Your task to perform on an android device: Open the calendar and show me this week's events Image 0: 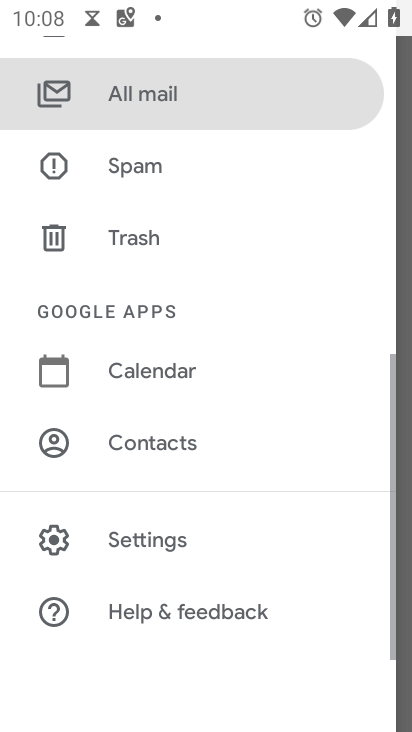
Step 0: drag from (251, 689) to (193, 286)
Your task to perform on an android device: Open the calendar and show me this week's events Image 1: 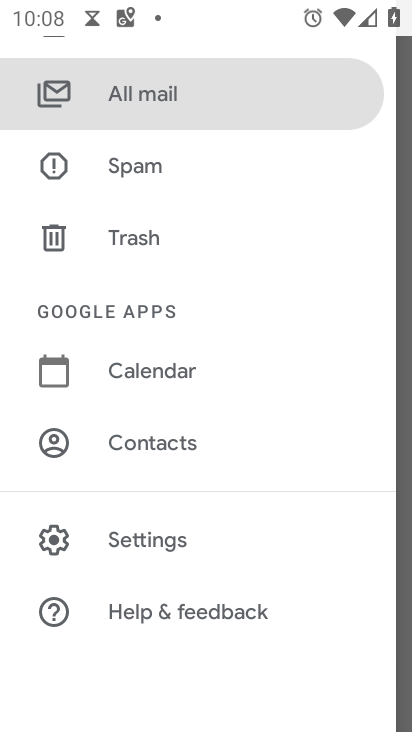
Step 1: press back button
Your task to perform on an android device: Open the calendar and show me this week's events Image 2: 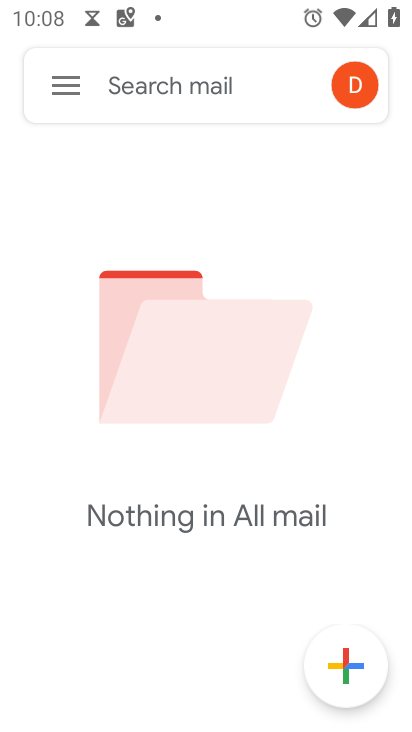
Step 2: press home button
Your task to perform on an android device: Open the calendar and show me this week's events Image 3: 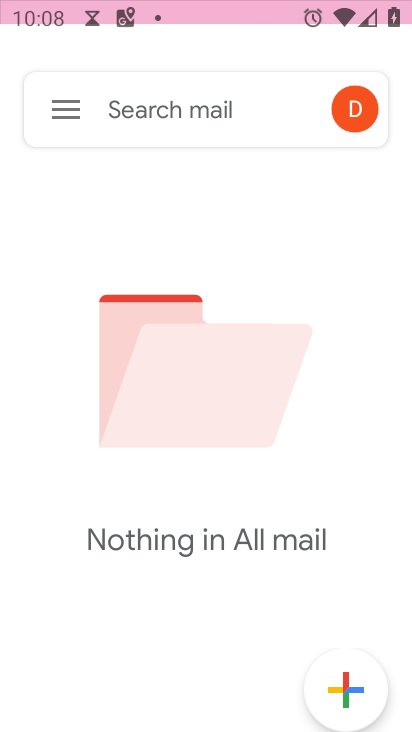
Step 3: press home button
Your task to perform on an android device: Open the calendar and show me this week's events Image 4: 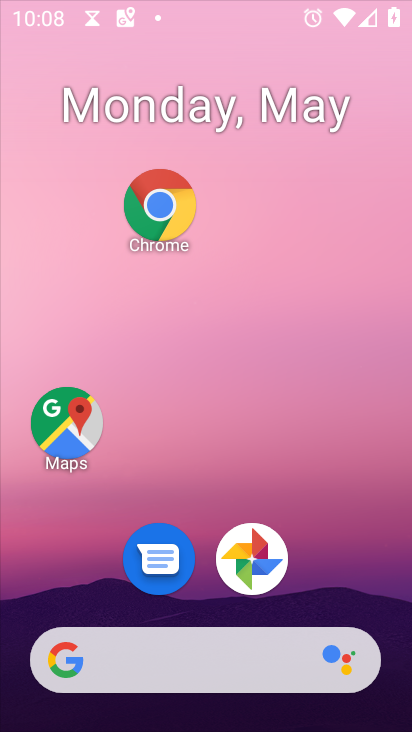
Step 4: press home button
Your task to perform on an android device: Open the calendar and show me this week's events Image 5: 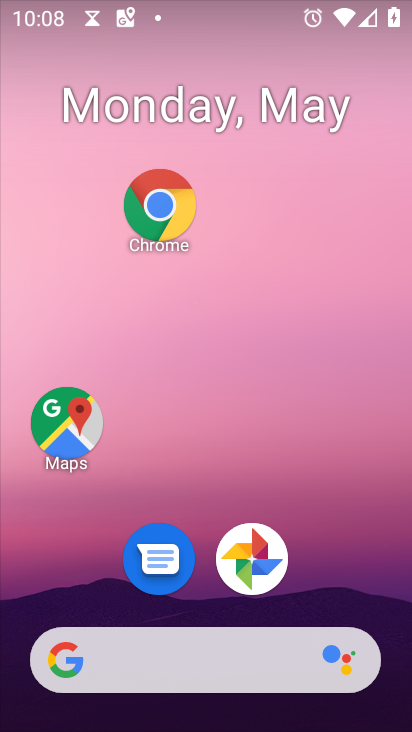
Step 5: drag from (327, 586) to (222, 7)
Your task to perform on an android device: Open the calendar and show me this week's events Image 6: 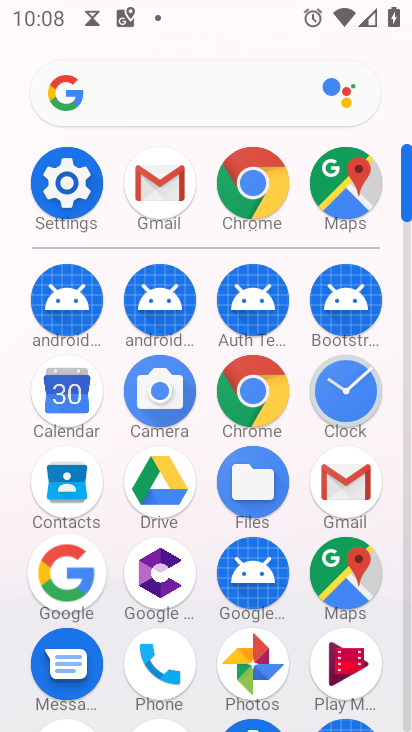
Step 6: click (68, 408)
Your task to perform on an android device: Open the calendar and show me this week's events Image 7: 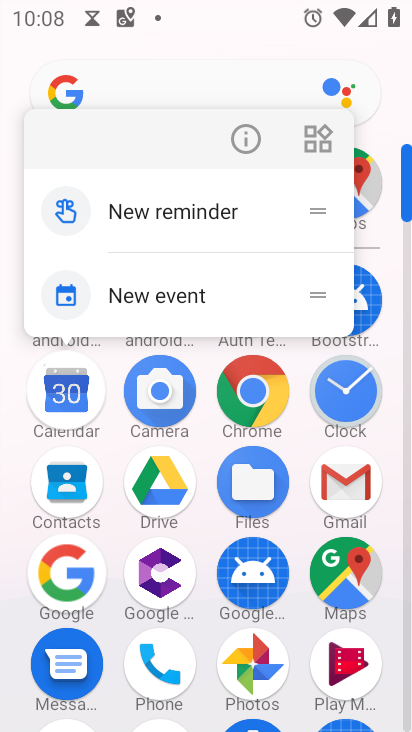
Step 7: click (74, 396)
Your task to perform on an android device: Open the calendar and show me this week's events Image 8: 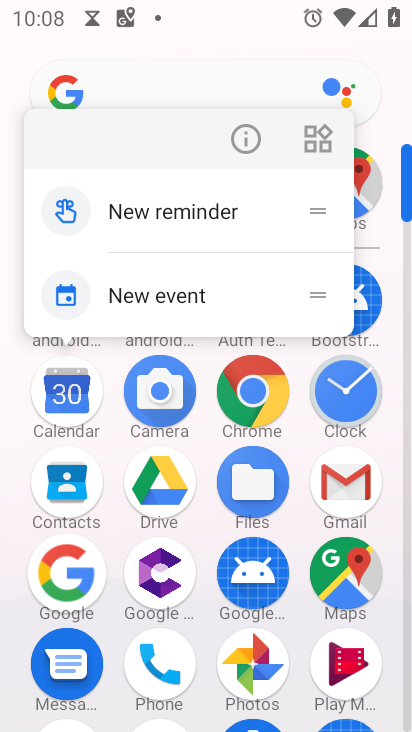
Step 8: click (102, 440)
Your task to perform on an android device: Open the calendar and show me this week's events Image 9: 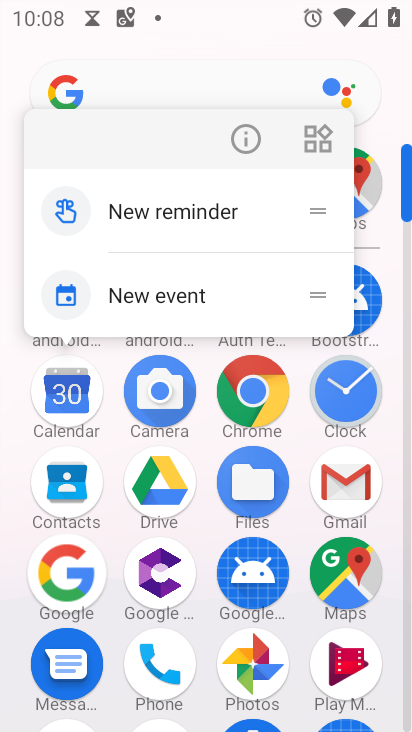
Step 9: click (108, 416)
Your task to perform on an android device: Open the calendar and show me this week's events Image 10: 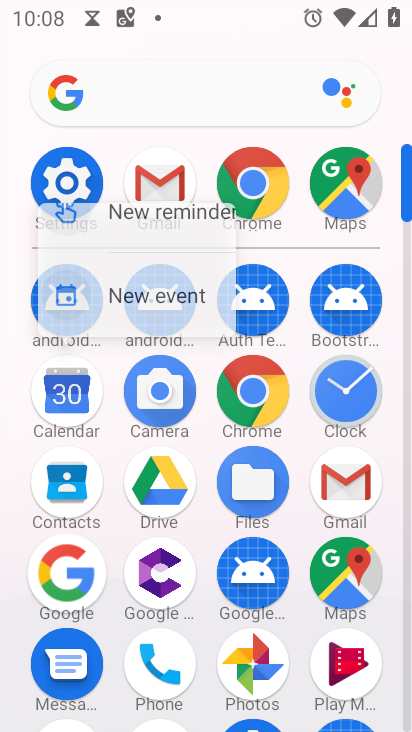
Step 10: click (109, 414)
Your task to perform on an android device: Open the calendar and show me this week's events Image 11: 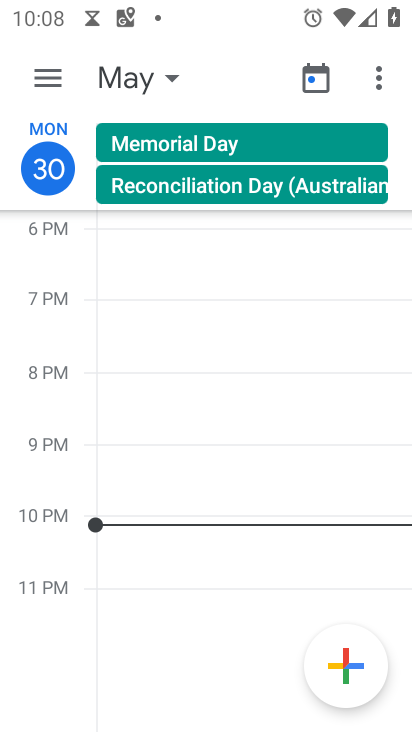
Step 11: press back button
Your task to perform on an android device: Open the calendar and show me this week's events Image 12: 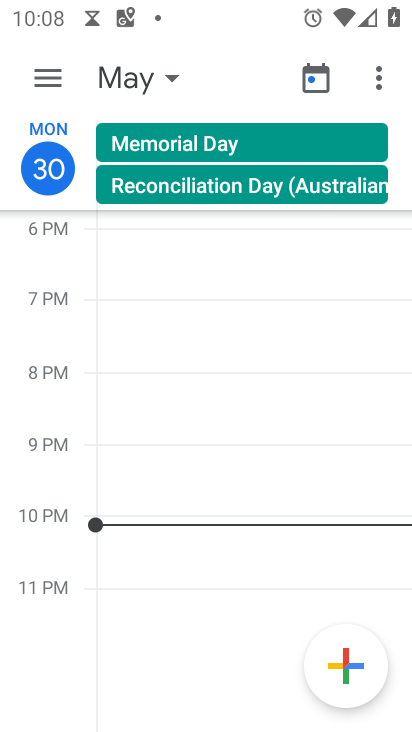
Step 12: press back button
Your task to perform on an android device: Open the calendar and show me this week's events Image 13: 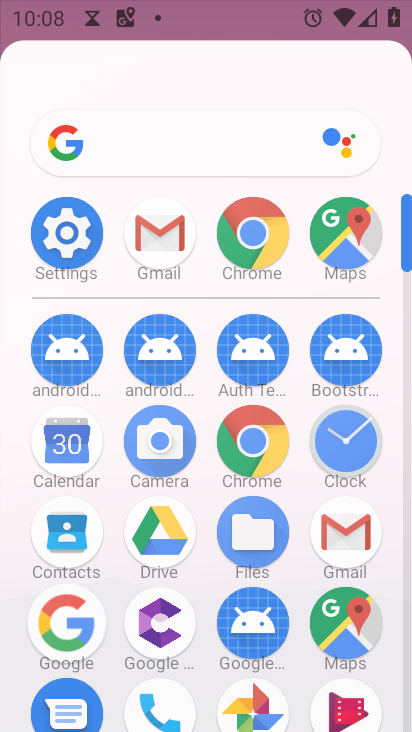
Step 13: press back button
Your task to perform on an android device: Open the calendar and show me this week's events Image 14: 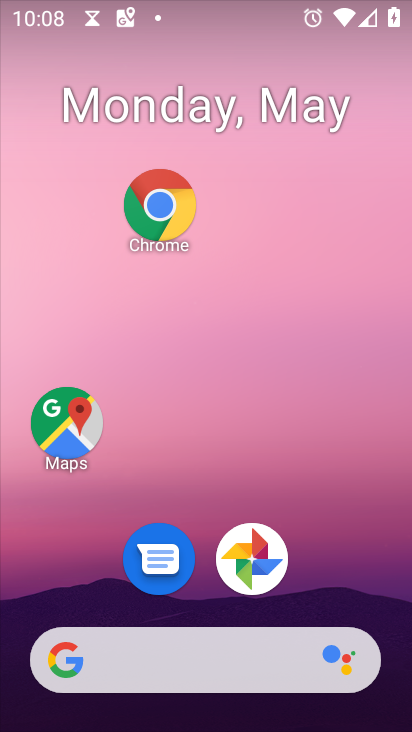
Step 14: press back button
Your task to perform on an android device: Open the calendar and show me this week's events Image 15: 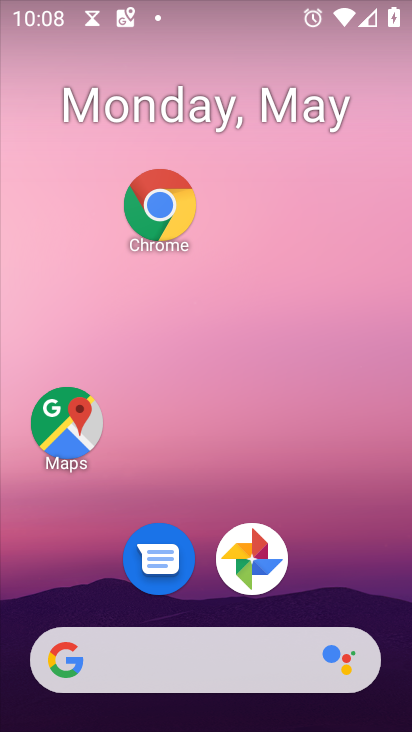
Step 15: press back button
Your task to perform on an android device: Open the calendar and show me this week's events Image 16: 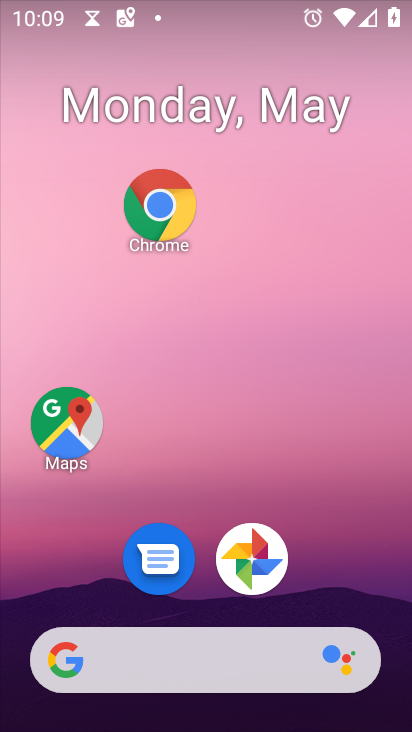
Step 16: drag from (224, 706) to (215, 186)
Your task to perform on an android device: Open the calendar and show me this week's events Image 17: 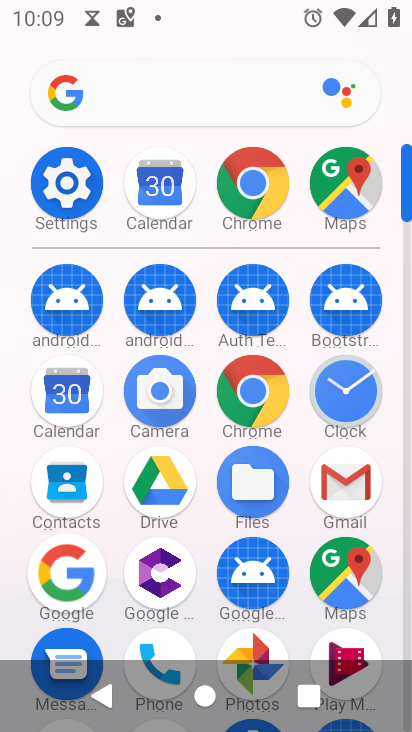
Step 17: click (68, 404)
Your task to perform on an android device: Open the calendar and show me this week's events Image 18: 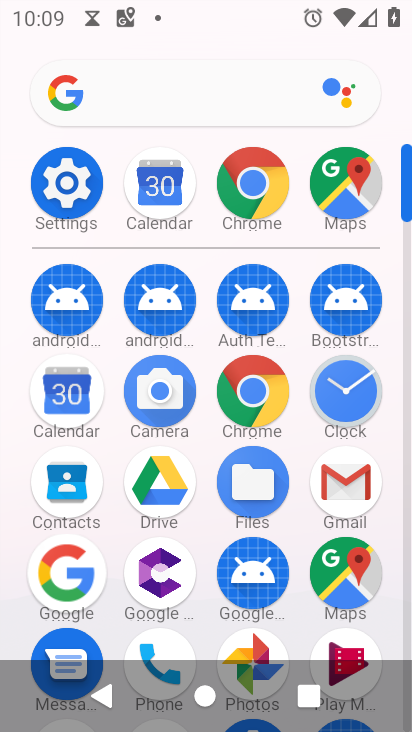
Step 18: click (65, 398)
Your task to perform on an android device: Open the calendar and show me this week's events Image 19: 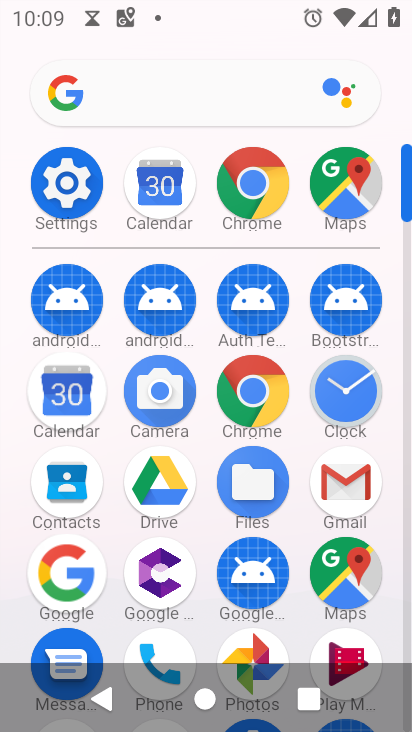
Step 19: click (65, 398)
Your task to perform on an android device: Open the calendar and show me this week's events Image 20: 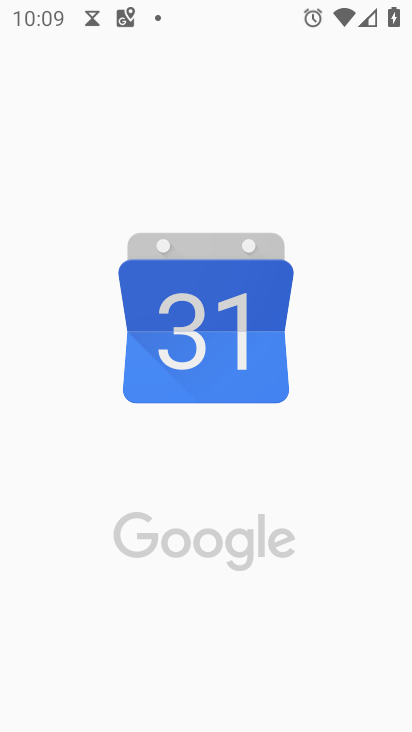
Step 20: click (64, 398)
Your task to perform on an android device: Open the calendar and show me this week's events Image 21: 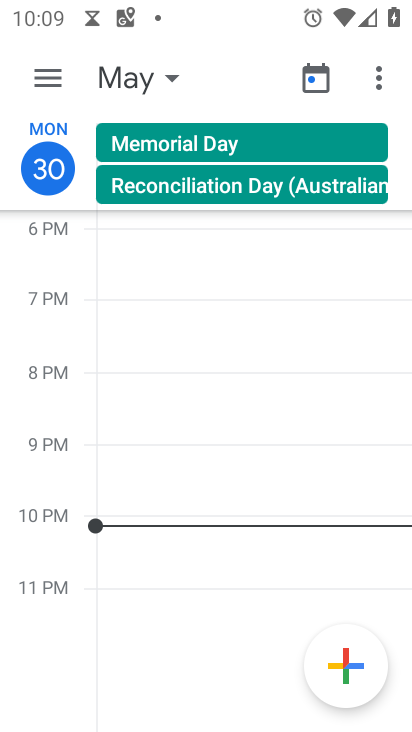
Step 21: press back button
Your task to perform on an android device: Open the calendar and show me this week's events Image 22: 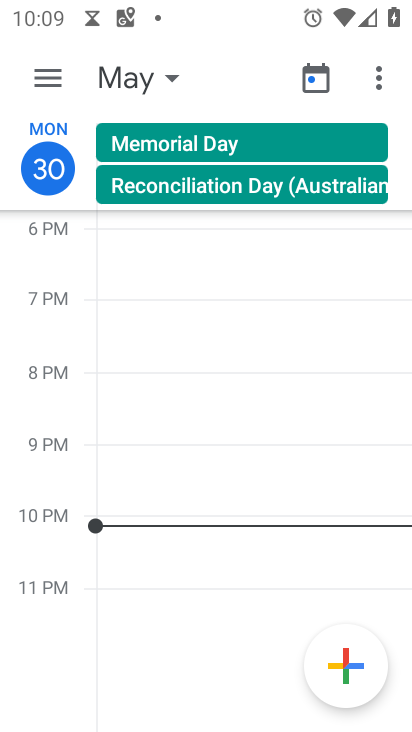
Step 22: press back button
Your task to perform on an android device: Open the calendar and show me this week's events Image 23: 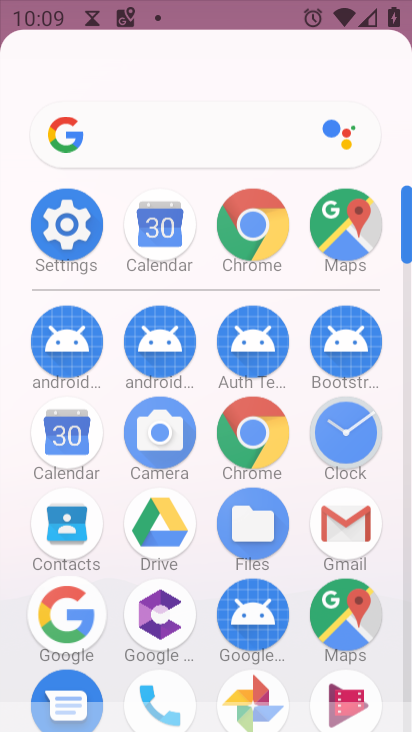
Step 23: press back button
Your task to perform on an android device: Open the calendar and show me this week's events Image 24: 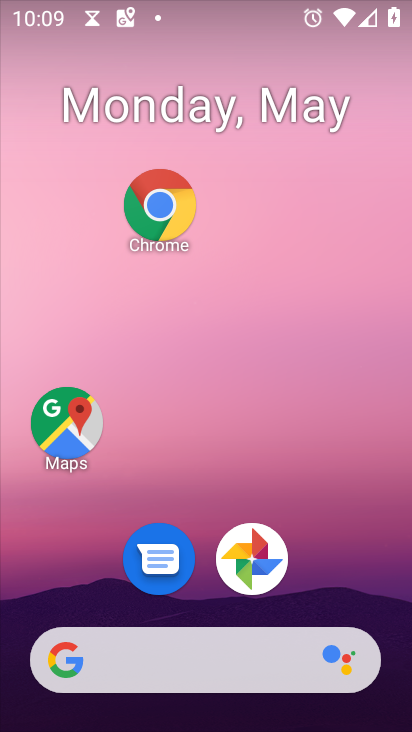
Step 24: drag from (212, 688) to (171, 152)
Your task to perform on an android device: Open the calendar and show me this week's events Image 25: 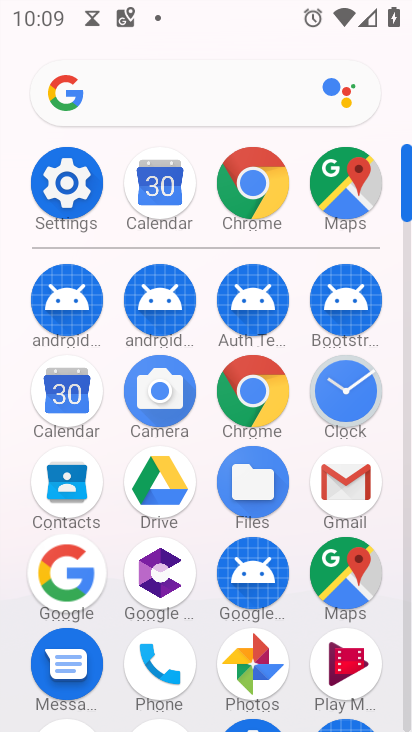
Step 25: click (73, 398)
Your task to perform on an android device: Open the calendar and show me this week's events Image 26: 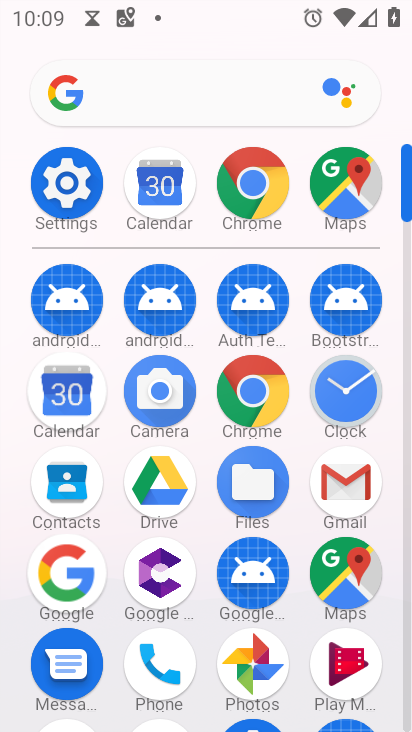
Step 26: click (73, 398)
Your task to perform on an android device: Open the calendar and show me this week's events Image 27: 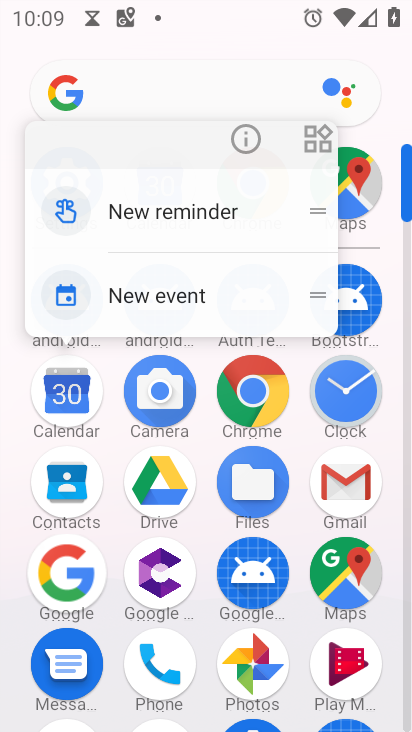
Step 27: click (73, 398)
Your task to perform on an android device: Open the calendar and show me this week's events Image 28: 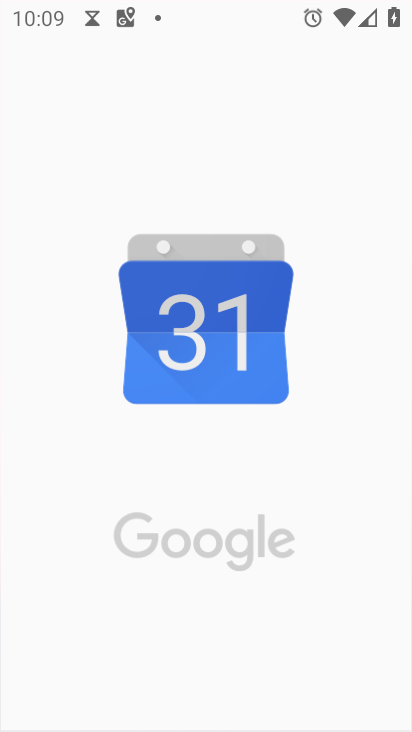
Step 28: click (76, 392)
Your task to perform on an android device: Open the calendar and show me this week's events Image 29: 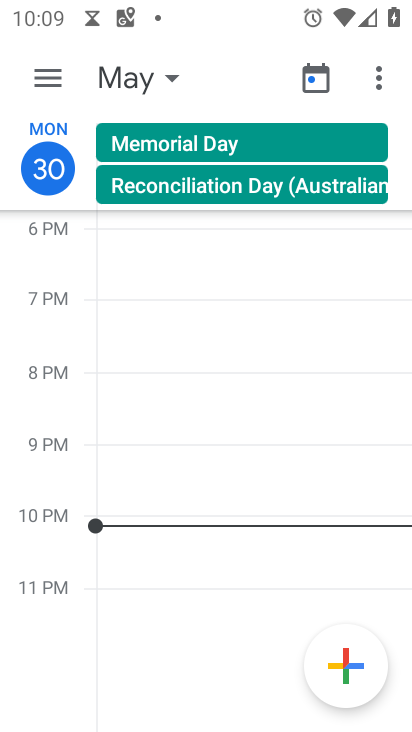
Step 29: click (164, 77)
Your task to perform on an android device: Open the calendar and show me this week's events Image 30: 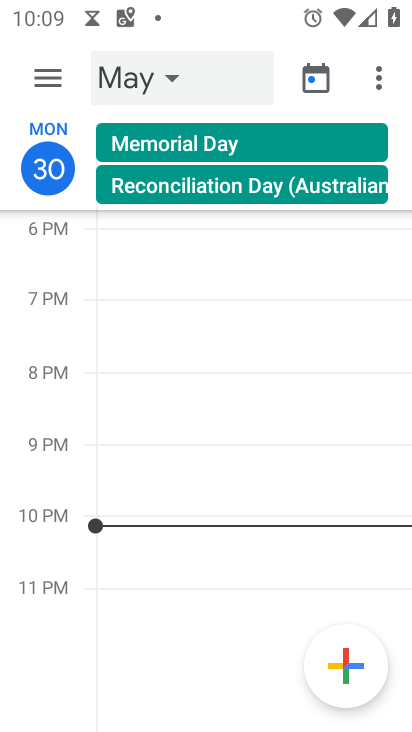
Step 30: click (164, 77)
Your task to perform on an android device: Open the calendar and show me this week's events Image 31: 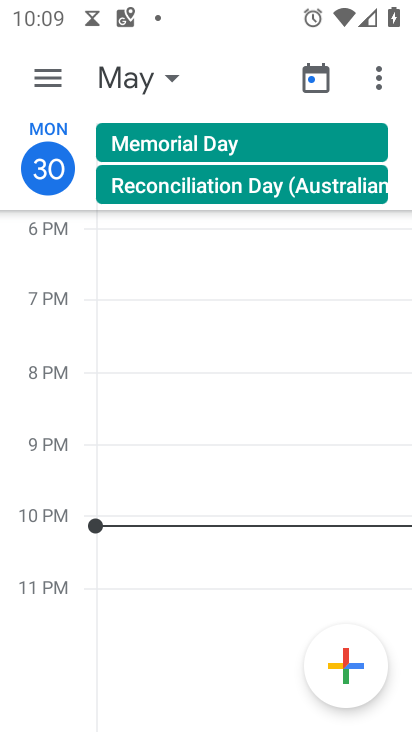
Step 31: click (170, 77)
Your task to perform on an android device: Open the calendar and show me this week's events Image 32: 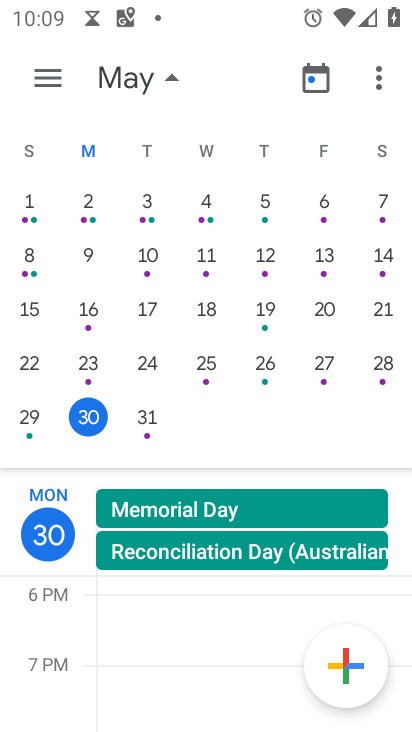
Step 32: drag from (291, 313) to (75, 345)
Your task to perform on an android device: Open the calendar and show me this week's events Image 33: 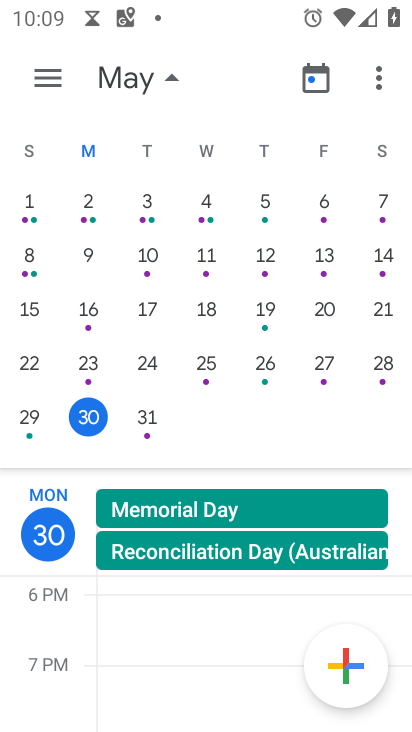
Step 33: drag from (349, 315) to (31, 375)
Your task to perform on an android device: Open the calendar and show me this week's events Image 34: 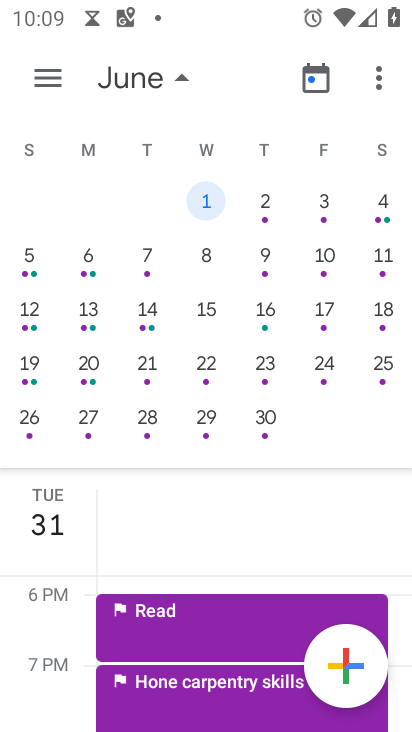
Step 34: drag from (290, 310) to (4, 339)
Your task to perform on an android device: Open the calendar and show me this week's events Image 35: 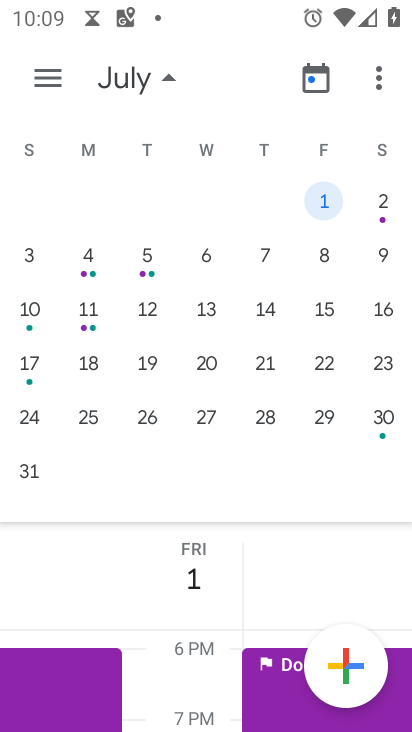
Step 35: click (10, 336)
Your task to perform on an android device: Open the calendar and show me this week's events Image 36: 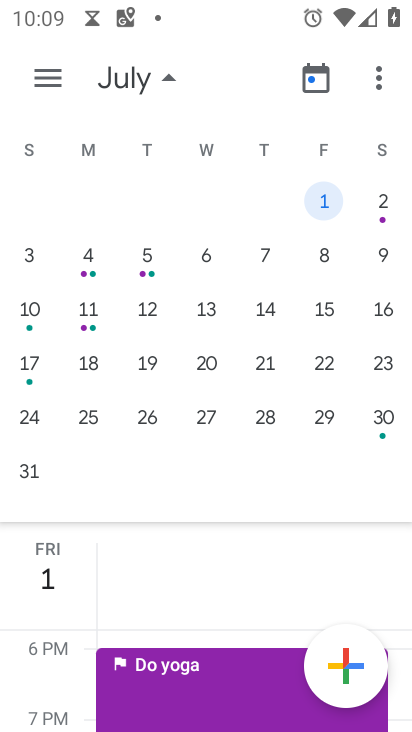
Step 36: drag from (52, 351) to (411, 346)
Your task to perform on an android device: Open the calendar and show me this week's events Image 37: 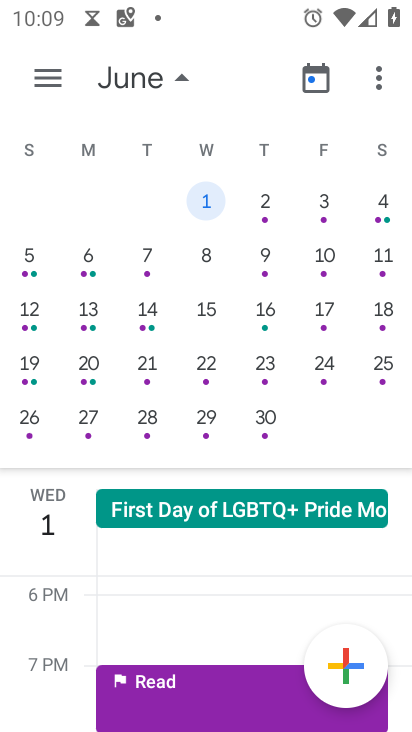
Step 37: drag from (139, 326) to (411, 306)
Your task to perform on an android device: Open the calendar and show me this week's events Image 38: 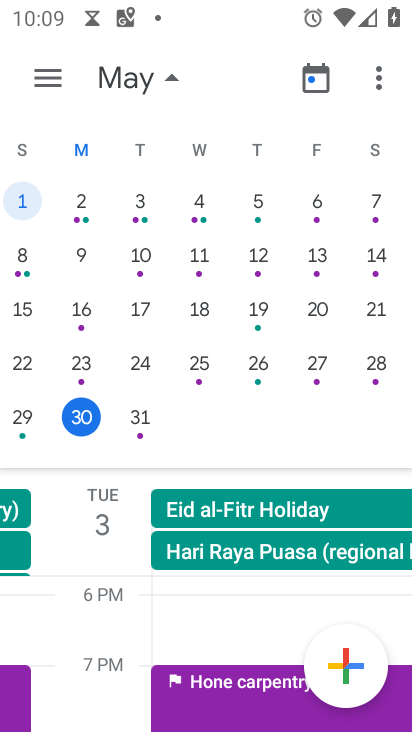
Step 38: drag from (117, 323) to (336, 285)
Your task to perform on an android device: Open the calendar and show me this week's events Image 39: 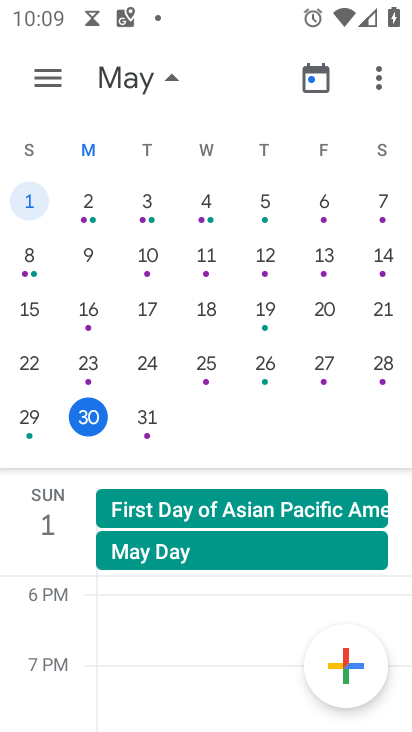
Step 39: drag from (3, 296) to (349, 275)
Your task to perform on an android device: Open the calendar and show me this week's events Image 40: 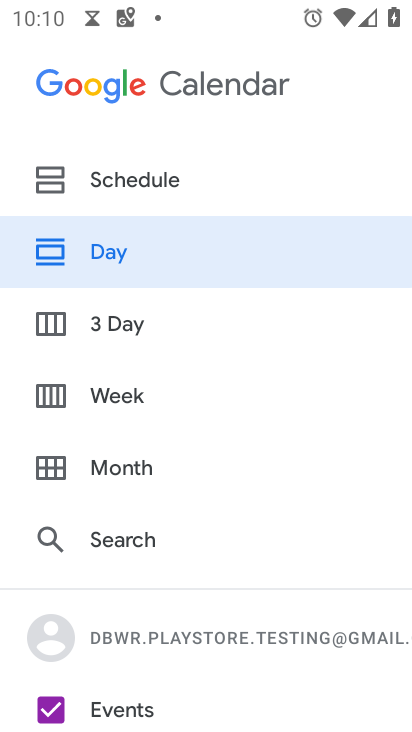
Step 40: press back button
Your task to perform on an android device: Open the calendar and show me this week's events Image 41: 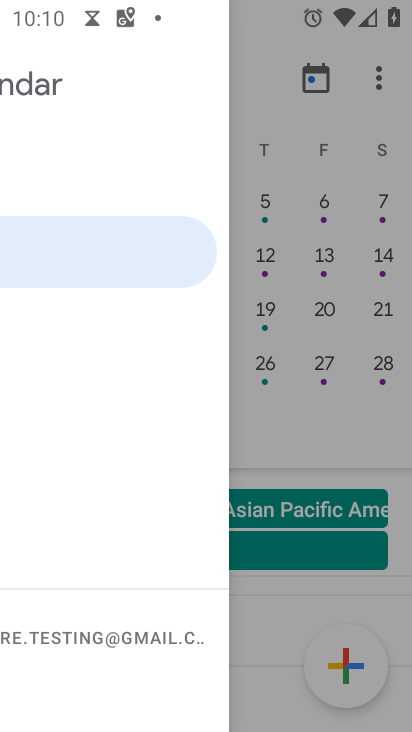
Step 41: press back button
Your task to perform on an android device: Open the calendar and show me this week's events Image 42: 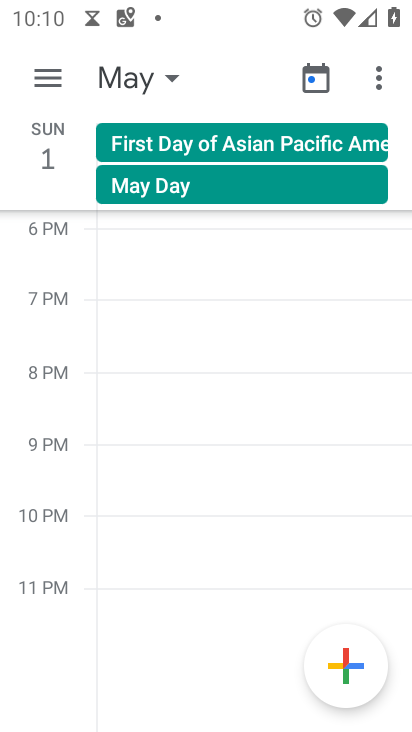
Step 42: click (164, 73)
Your task to perform on an android device: Open the calendar and show me this week's events Image 43: 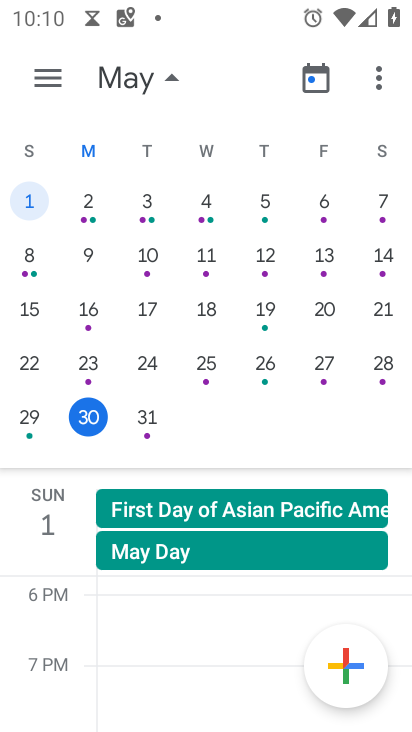
Step 43: drag from (103, 347) to (3, 353)
Your task to perform on an android device: Open the calendar and show me this week's events Image 44: 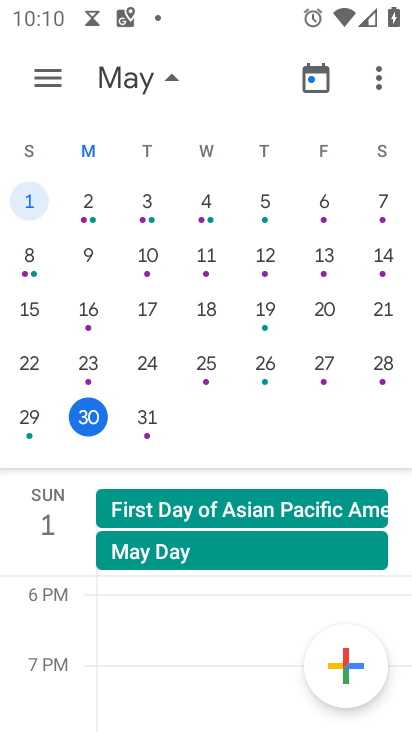
Step 44: drag from (292, 277) to (0, 448)
Your task to perform on an android device: Open the calendar and show me this week's events Image 45: 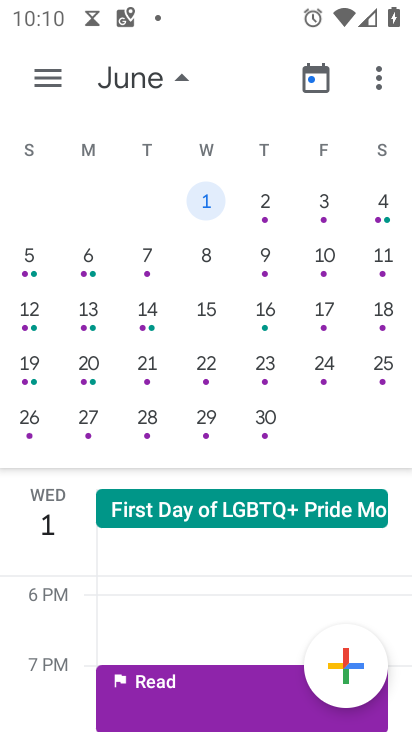
Step 45: drag from (303, 284) to (13, 406)
Your task to perform on an android device: Open the calendar and show me this week's events Image 46: 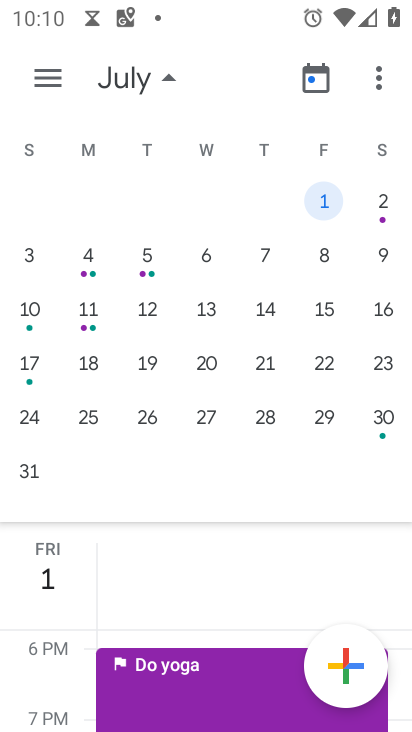
Step 46: drag from (110, 322) to (403, 376)
Your task to perform on an android device: Open the calendar and show me this week's events Image 47: 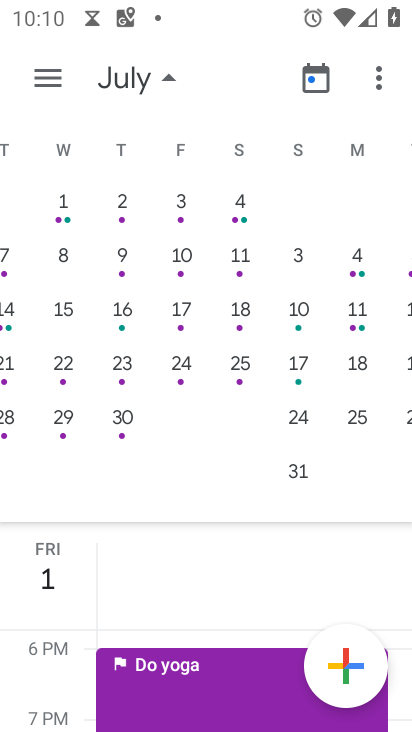
Step 47: drag from (41, 329) to (401, 298)
Your task to perform on an android device: Open the calendar and show me this week's events Image 48: 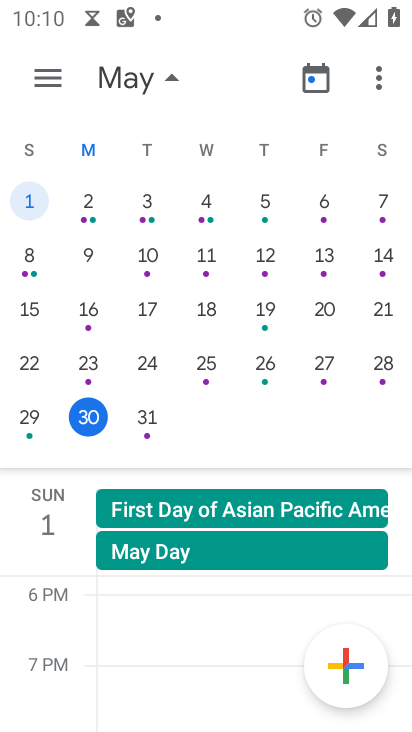
Step 48: drag from (264, 261) to (98, 392)
Your task to perform on an android device: Open the calendar and show me this week's events Image 49: 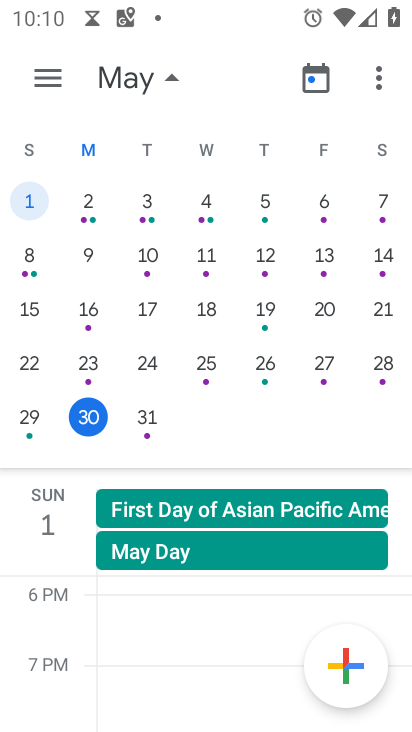
Step 49: drag from (284, 341) to (14, 364)
Your task to perform on an android device: Open the calendar and show me this week's events Image 50: 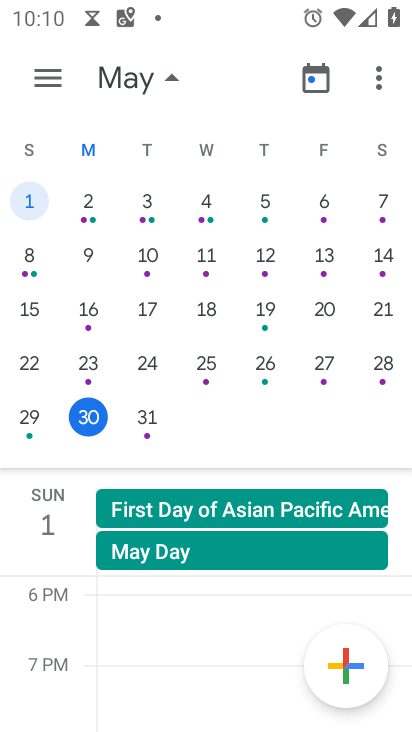
Step 50: drag from (258, 278) to (66, 288)
Your task to perform on an android device: Open the calendar and show me this week's events Image 51: 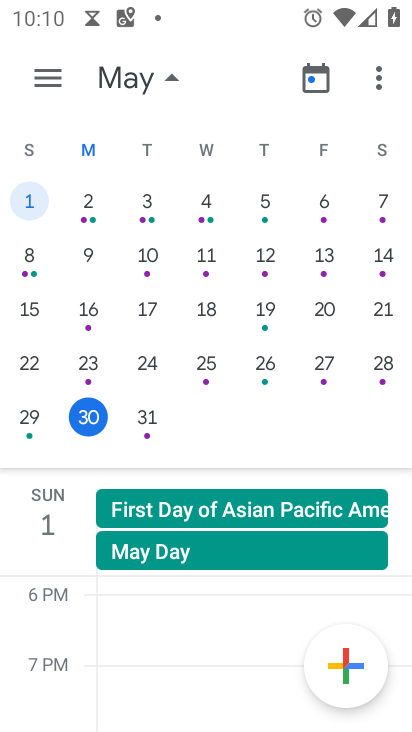
Step 51: drag from (319, 302) to (8, 320)
Your task to perform on an android device: Open the calendar and show me this week's events Image 52: 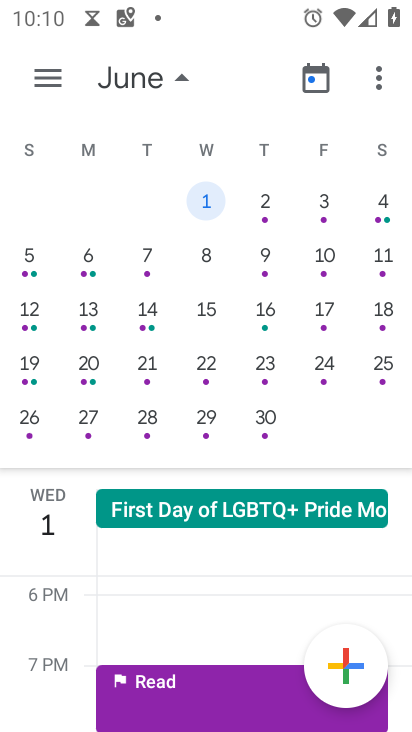
Step 52: click (18, 389)
Your task to perform on an android device: Open the calendar and show me this week's events Image 53: 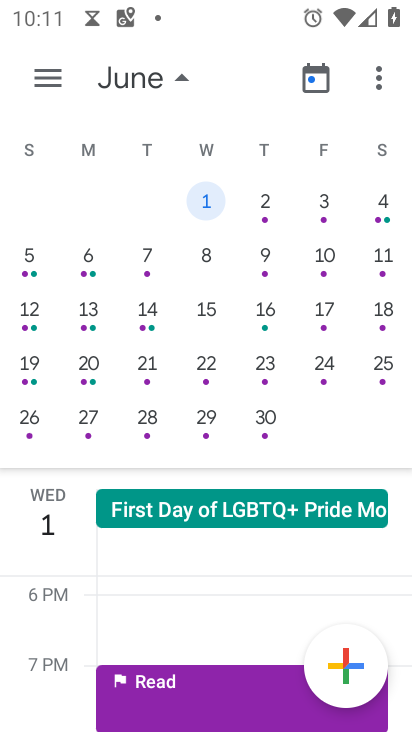
Step 53: drag from (76, 367) to (362, 391)
Your task to perform on an android device: Open the calendar and show me this week's events Image 54: 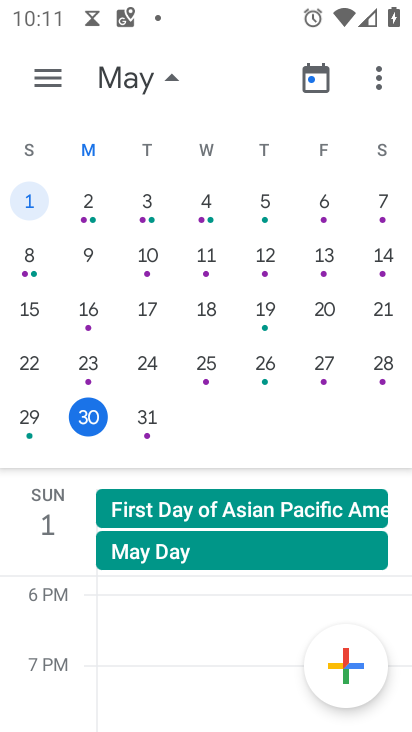
Step 54: click (149, 410)
Your task to perform on an android device: Open the calendar and show me this week's events Image 55: 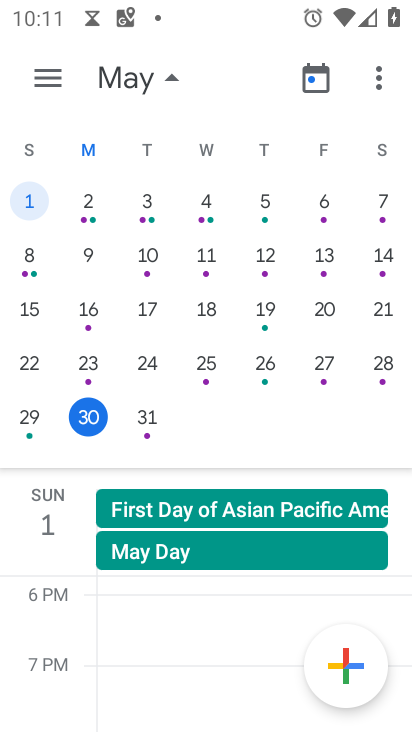
Step 55: click (149, 411)
Your task to perform on an android device: Open the calendar and show me this week's events Image 56: 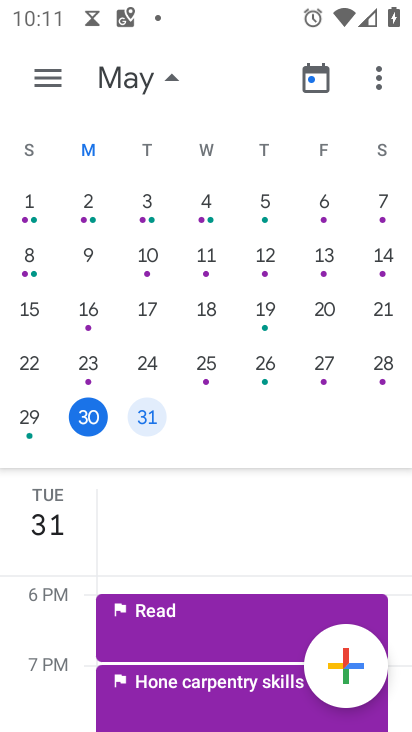
Step 56: click (149, 411)
Your task to perform on an android device: Open the calendar and show me this week's events Image 57: 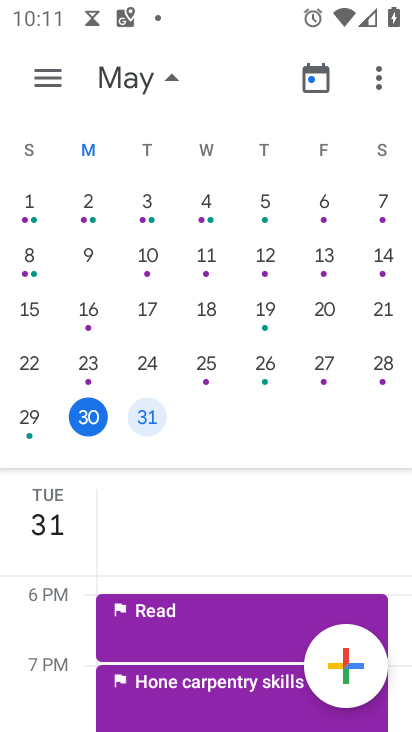
Step 57: click (149, 411)
Your task to perform on an android device: Open the calendar and show me this week's events Image 58: 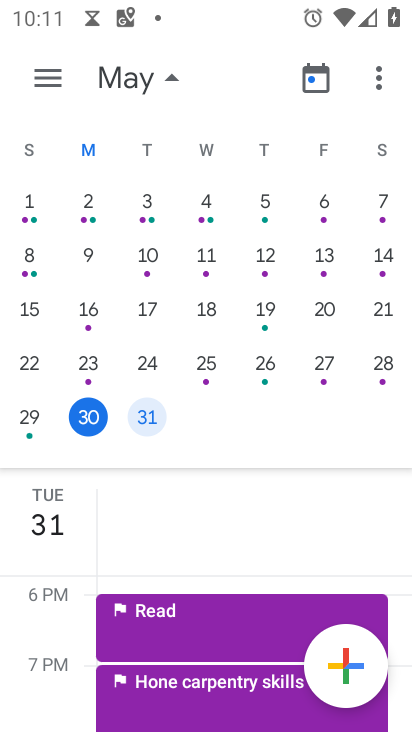
Step 58: drag from (191, 617) to (129, 232)
Your task to perform on an android device: Open the calendar and show me this week's events Image 59: 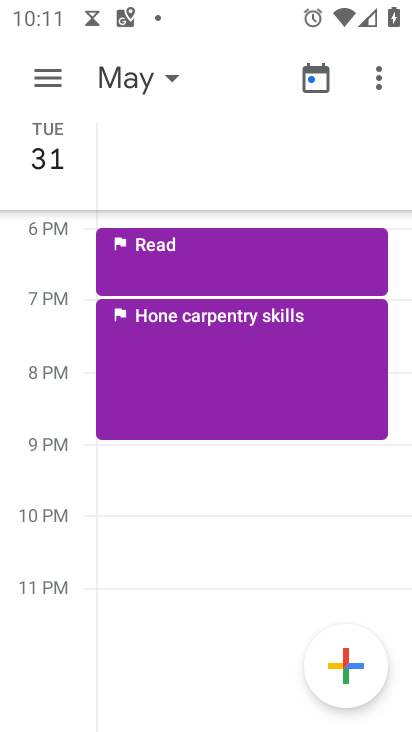
Step 59: drag from (223, 494) to (165, 163)
Your task to perform on an android device: Open the calendar and show me this week's events Image 60: 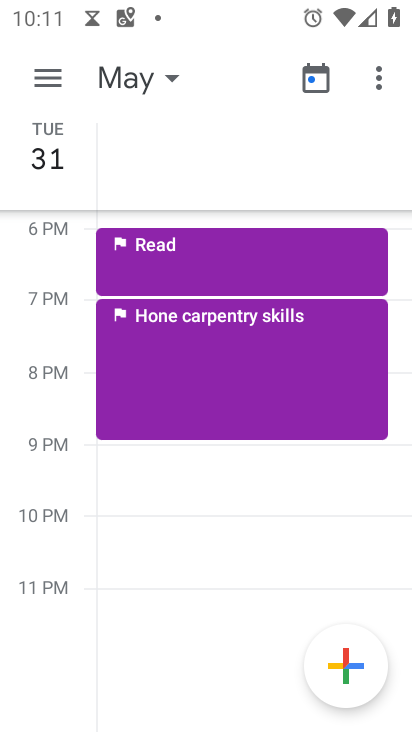
Step 60: click (211, 12)
Your task to perform on an android device: Open the calendar and show me this week's events Image 61: 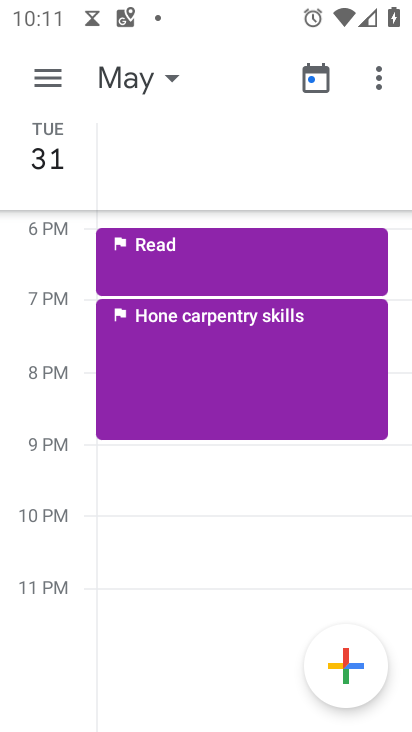
Step 61: task complete